Your task to perform on an android device: clear history in the chrome app Image 0: 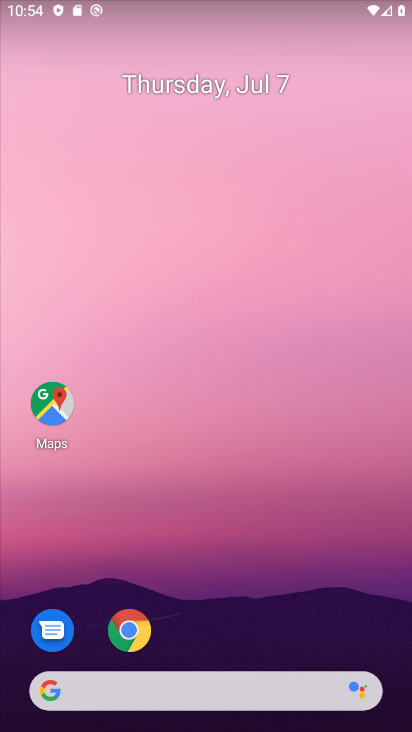
Step 0: drag from (267, 639) to (251, 114)
Your task to perform on an android device: clear history in the chrome app Image 1: 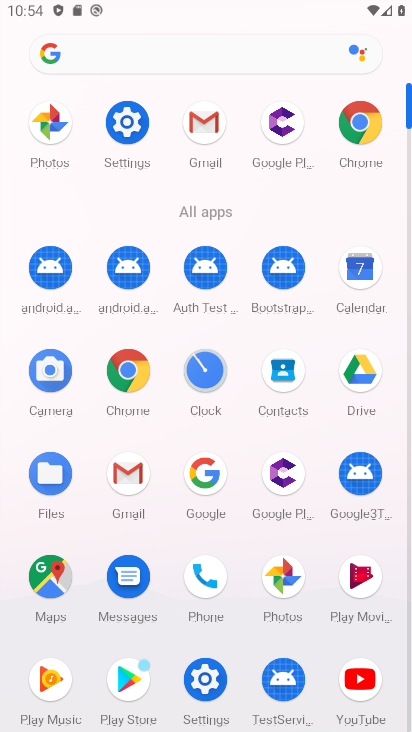
Step 1: click (337, 141)
Your task to perform on an android device: clear history in the chrome app Image 2: 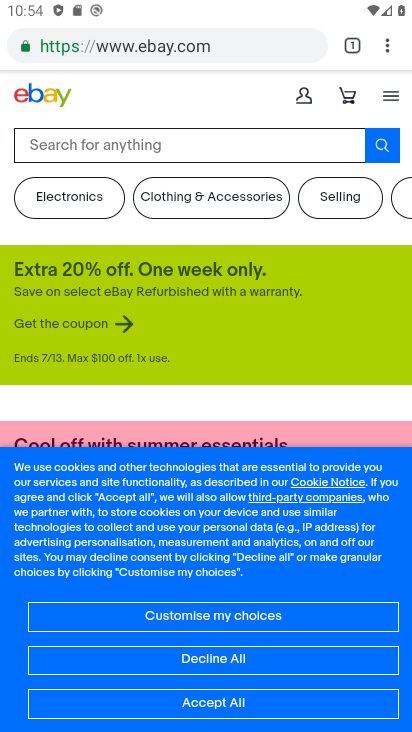
Step 2: click (390, 42)
Your task to perform on an android device: clear history in the chrome app Image 3: 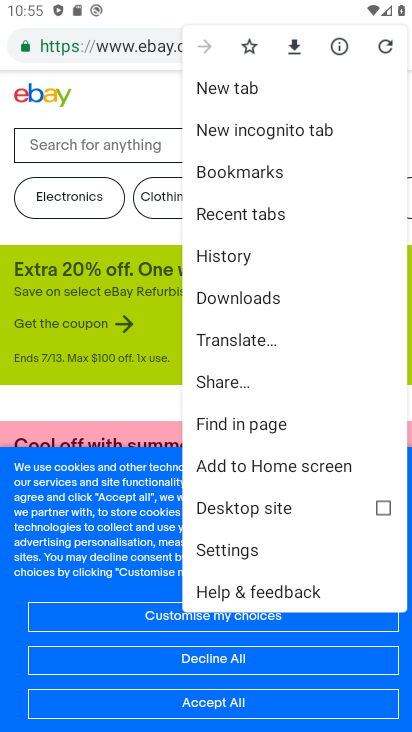
Step 3: click (264, 254)
Your task to perform on an android device: clear history in the chrome app Image 4: 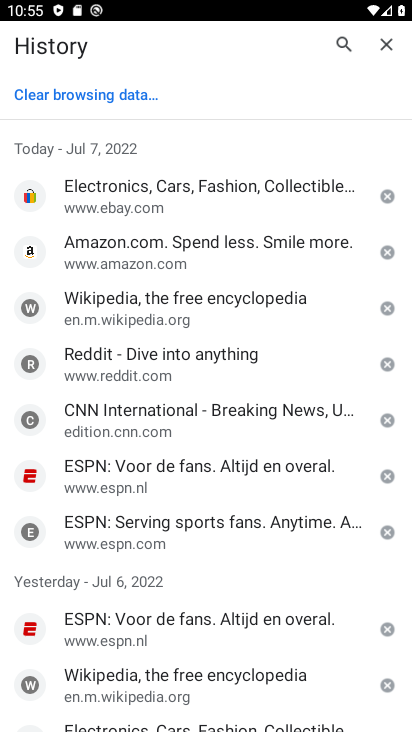
Step 4: click (67, 102)
Your task to perform on an android device: clear history in the chrome app Image 5: 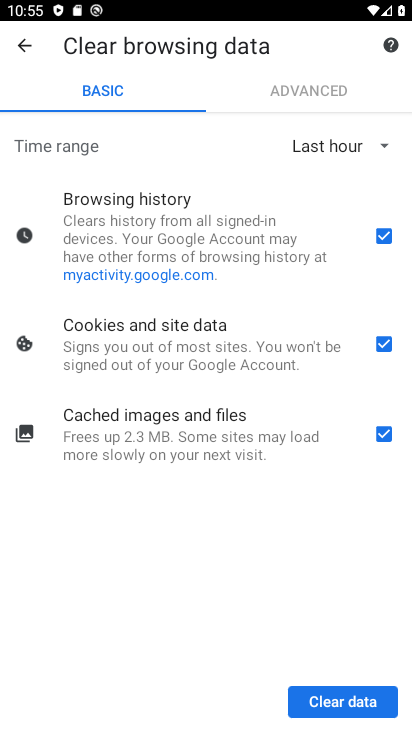
Step 5: click (364, 686)
Your task to perform on an android device: clear history in the chrome app Image 6: 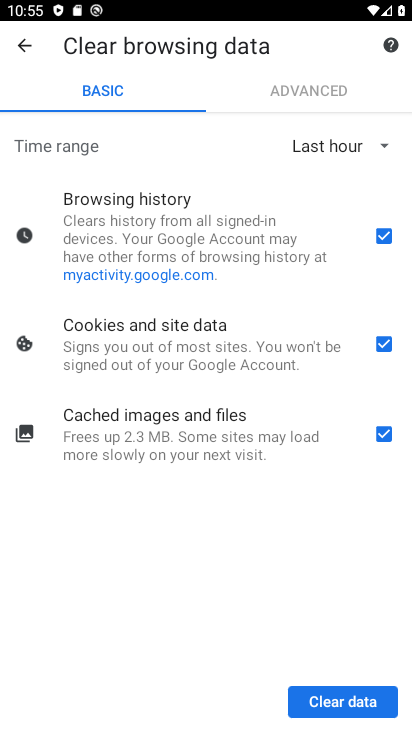
Step 6: click (360, 692)
Your task to perform on an android device: clear history in the chrome app Image 7: 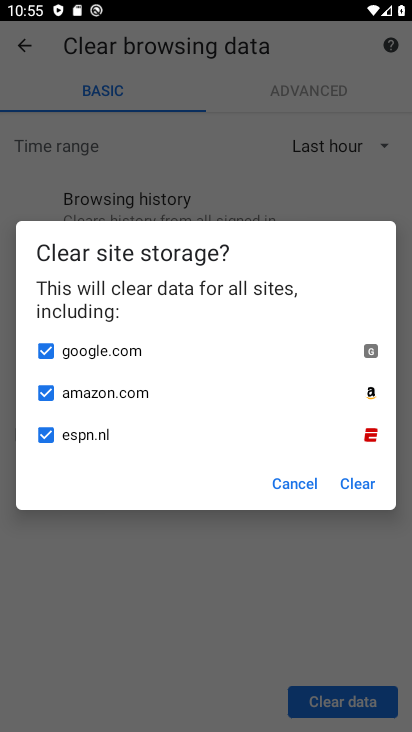
Step 7: click (376, 486)
Your task to perform on an android device: clear history in the chrome app Image 8: 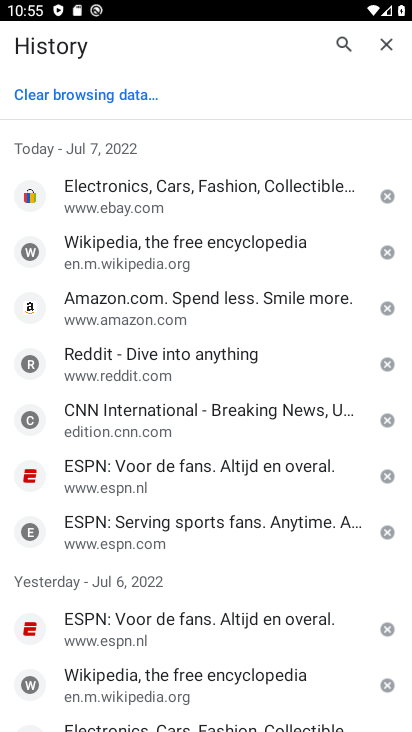
Step 8: task complete